Your task to perform on an android device: refresh tabs in the chrome app Image 0: 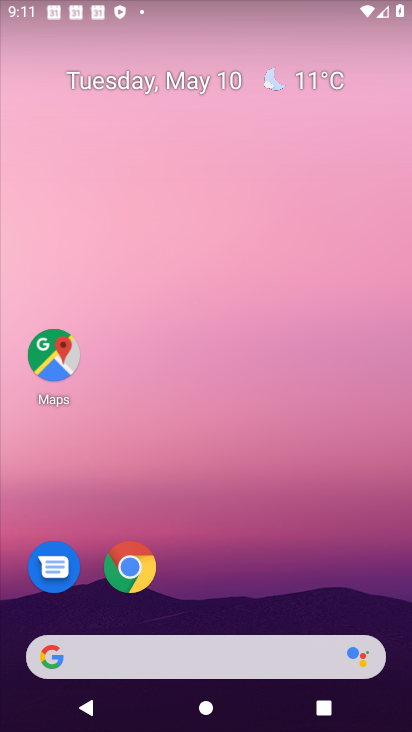
Step 0: click (136, 576)
Your task to perform on an android device: refresh tabs in the chrome app Image 1: 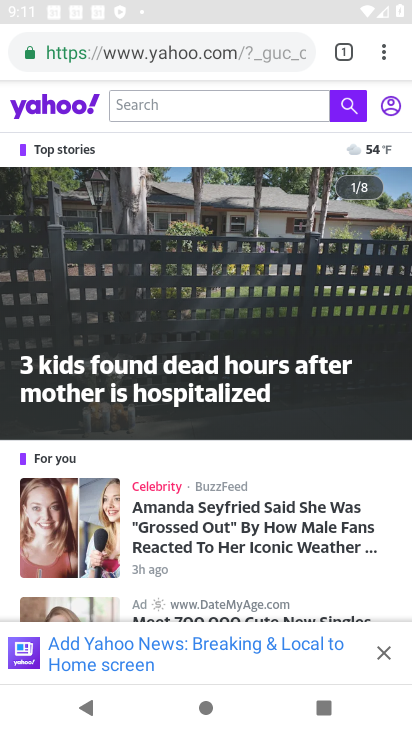
Step 1: click (131, 572)
Your task to perform on an android device: refresh tabs in the chrome app Image 2: 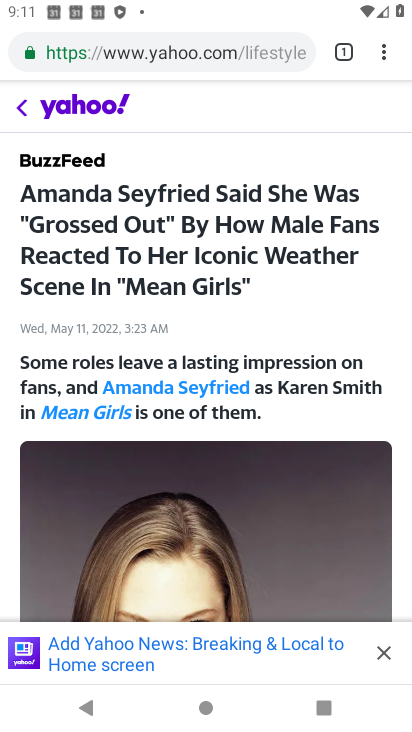
Step 2: click (379, 51)
Your task to perform on an android device: refresh tabs in the chrome app Image 3: 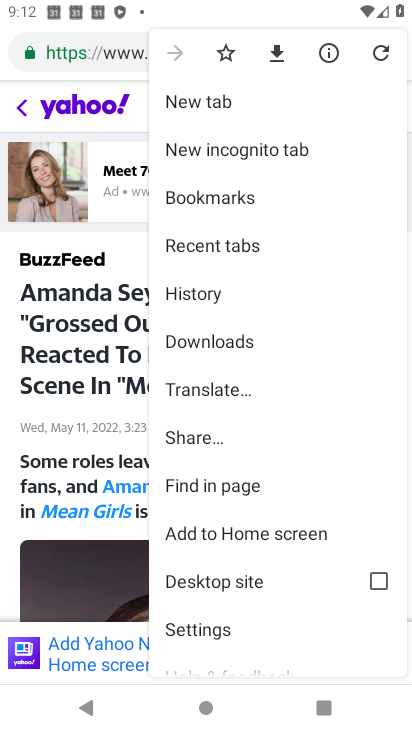
Step 3: click (385, 49)
Your task to perform on an android device: refresh tabs in the chrome app Image 4: 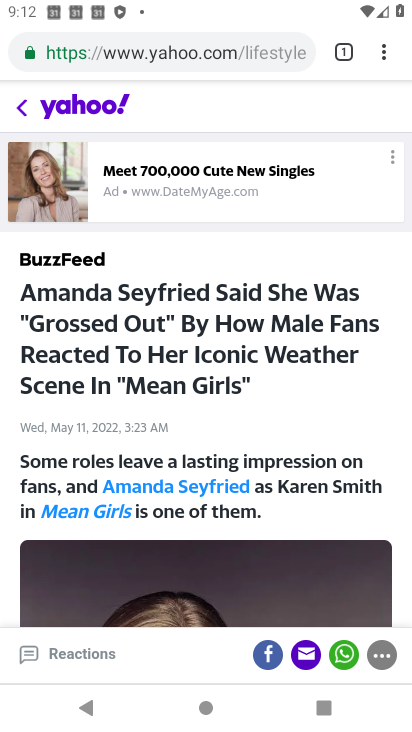
Step 4: click (383, 49)
Your task to perform on an android device: refresh tabs in the chrome app Image 5: 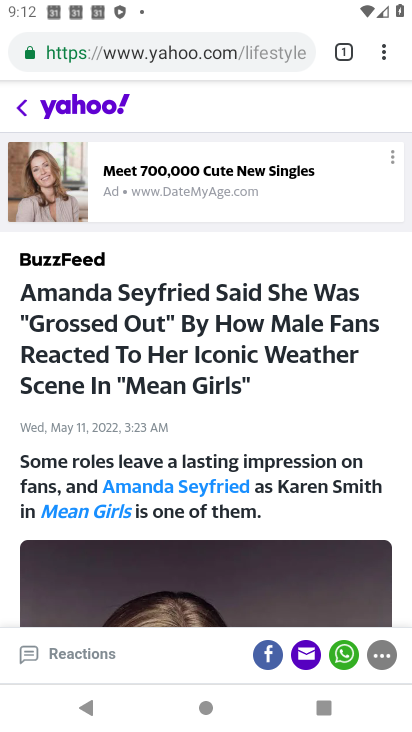
Step 5: click (385, 52)
Your task to perform on an android device: refresh tabs in the chrome app Image 6: 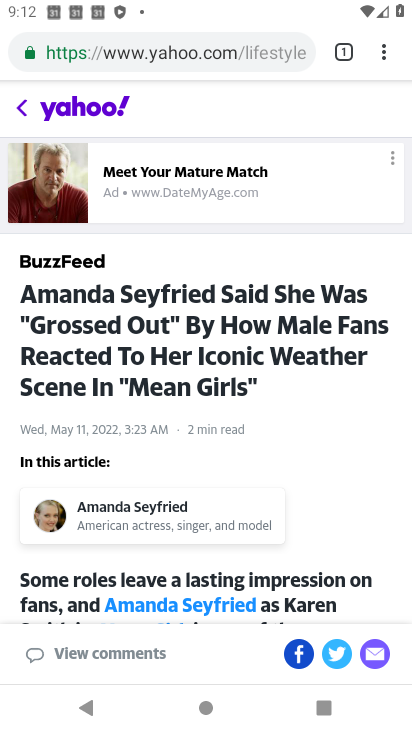
Step 6: task complete